Your task to perform on an android device: change notifications settings Image 0: 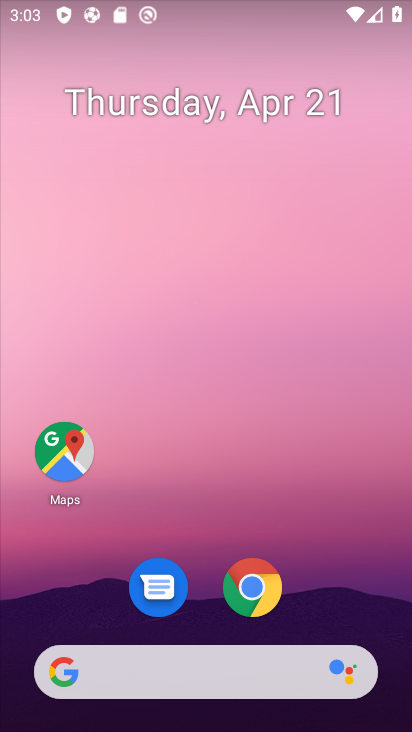
Step 0: drag from (312, 564) to (81, 94)
Your task to perform on an android device: change notifications settings Image 1: 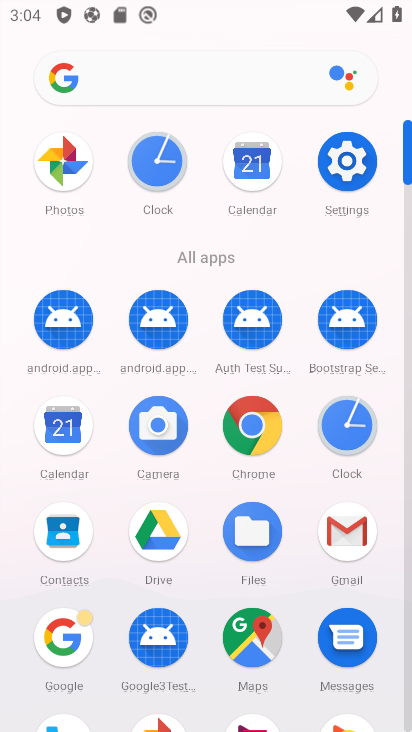
Step 1: click (349, 159)
Your task to perform on an android device: change notifications settings Image 2: 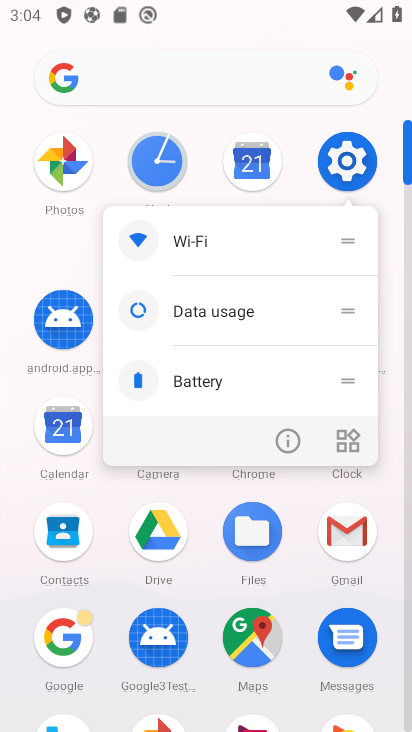
Step 2: click (349, 156)
Your task to perform on an android device: change notifications settings Image 3: 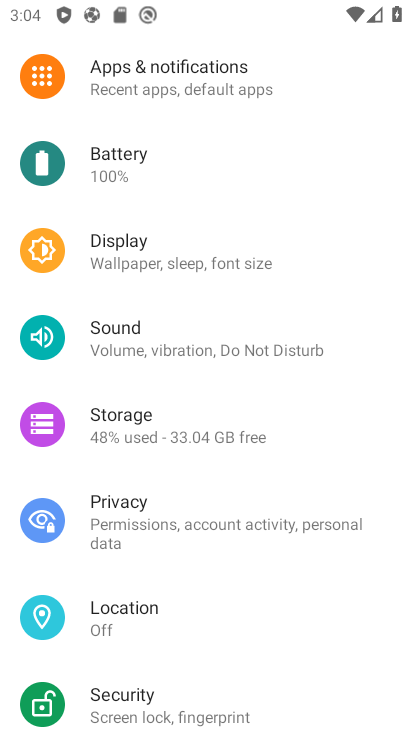
Step 3: click (141, 83)
Your task to perform on an android device: change notifications settings Image 4: 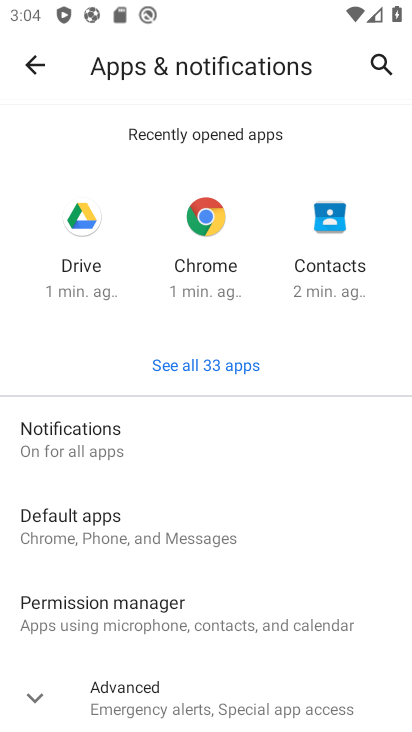
Step 4: drag from (126, 583) to (145, 451)
Your task to perform on an android device: change notifications settings Image 5: 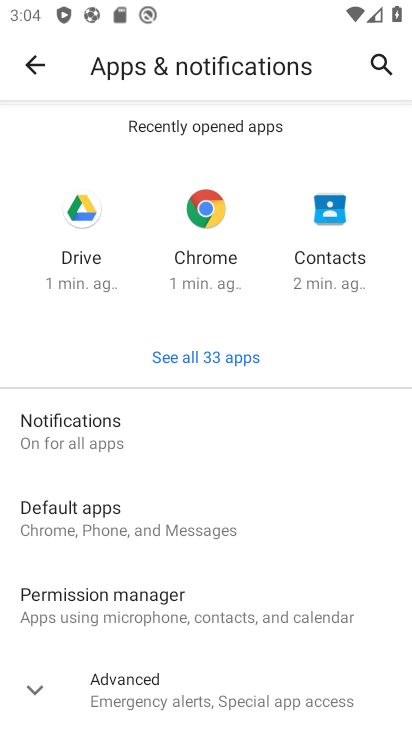
Step 5: click (78, 438)
Your task to perform on an android device: change notifications settings Image 6: 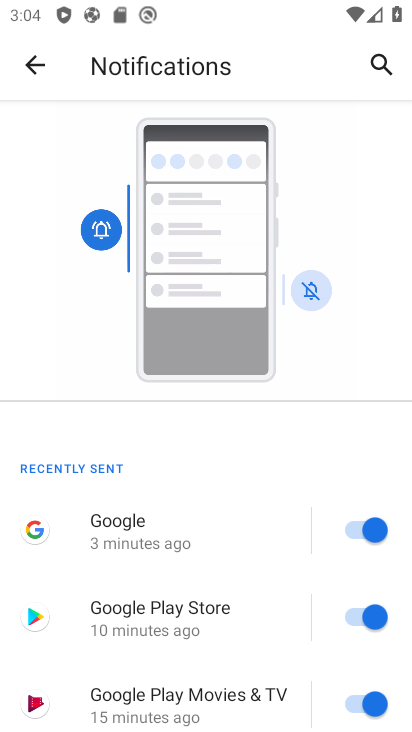
Step 6: drag from (111, 598) to (110, 367)
Your task to perform on an android device: change notifications settings Image 7: 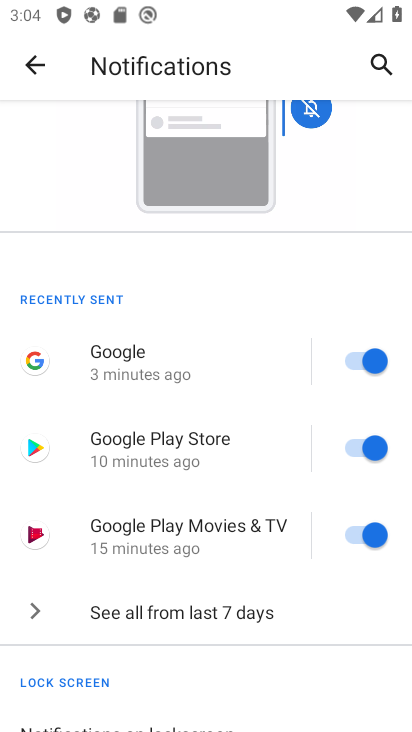
Step 7: drag from (108, 669) to (117, 362)
Your task to perform on an android device: change notifications settings Image 8: 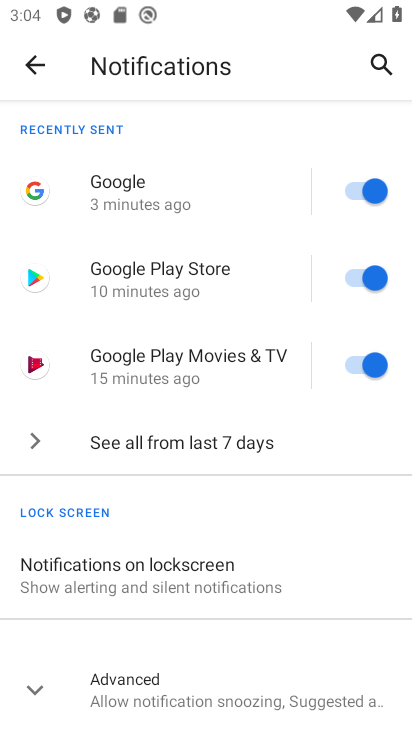
Step 8: click (361, 198)
Your task to perform on an android device: change notifications settings Image 9: 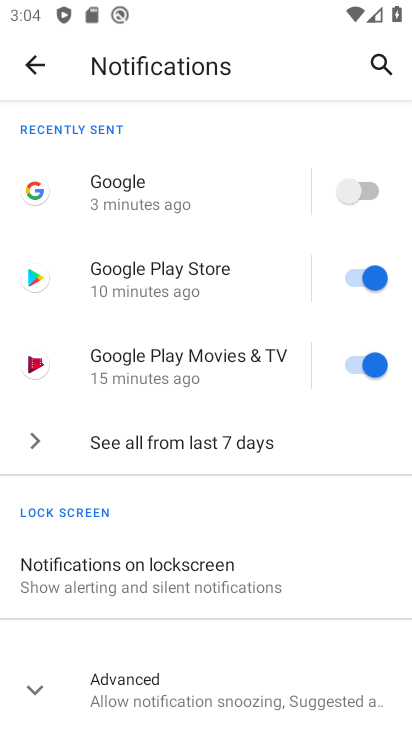
Step 9: click (366, 273)
Your task to perform on an android device: change notifications settings Image 10: 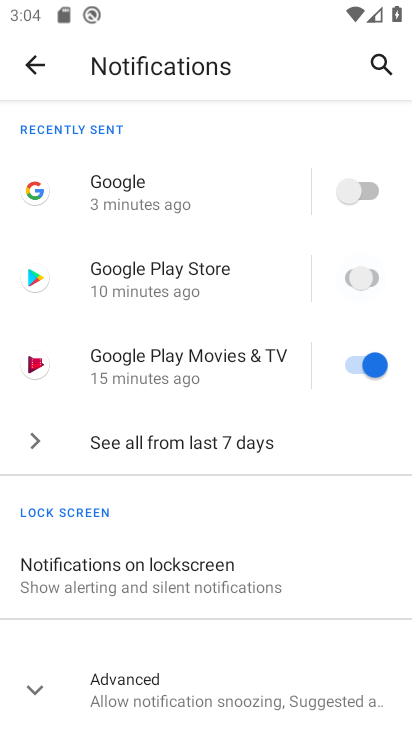
Step 10: click (368, 371)
Your task to perform on an android device: change notifications settings Image 11: 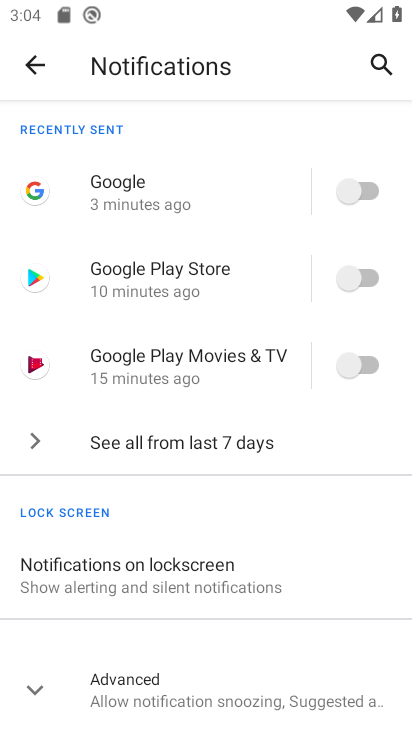
Step 11: task complete